Your task to perform on an android device: Open the map Image 0: 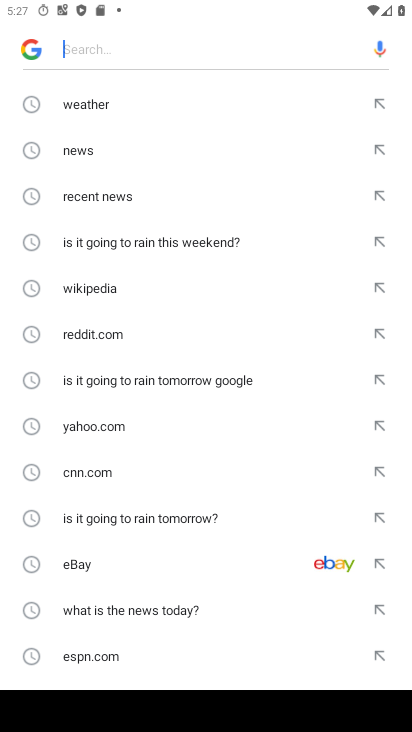
Step 0: press home button
Your task to perform on an android device: Open the map Image 1: 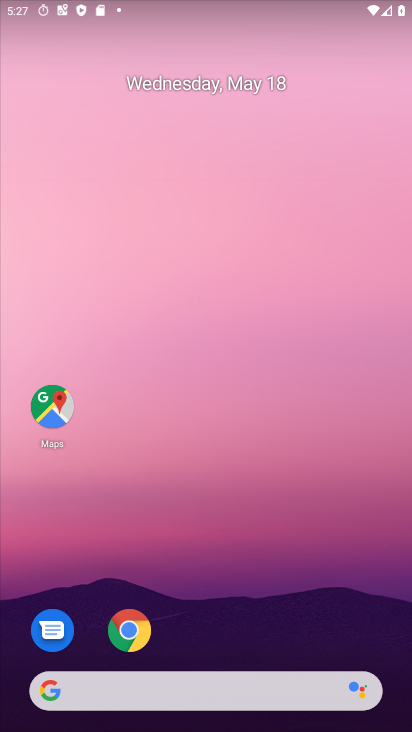
Step 1: click (57, 398)
Your task to perform on an android device: Open the map Image 2: 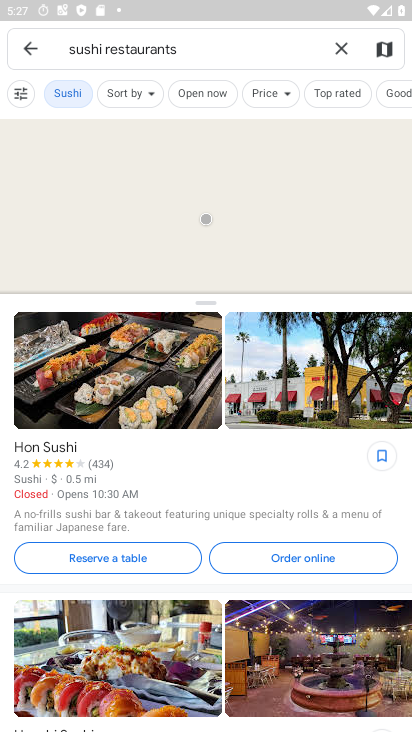
Step 2: click (332, 45)
Your task to perform on an android device: Open the map Image 3: 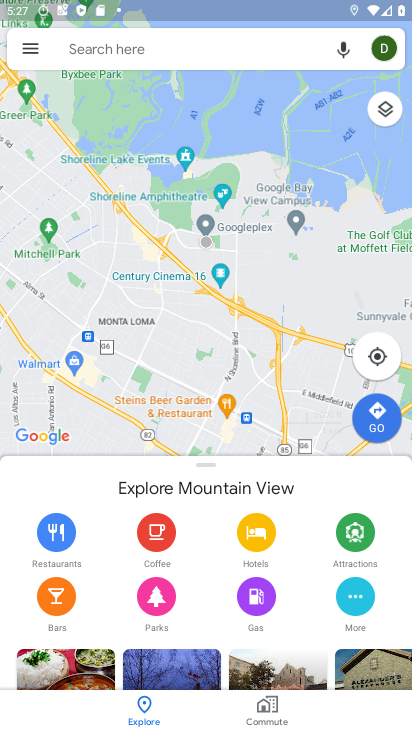
Step 3: task complete